Your task to perform on an android device: see tabs open on other devices in the chrome app Image 0: 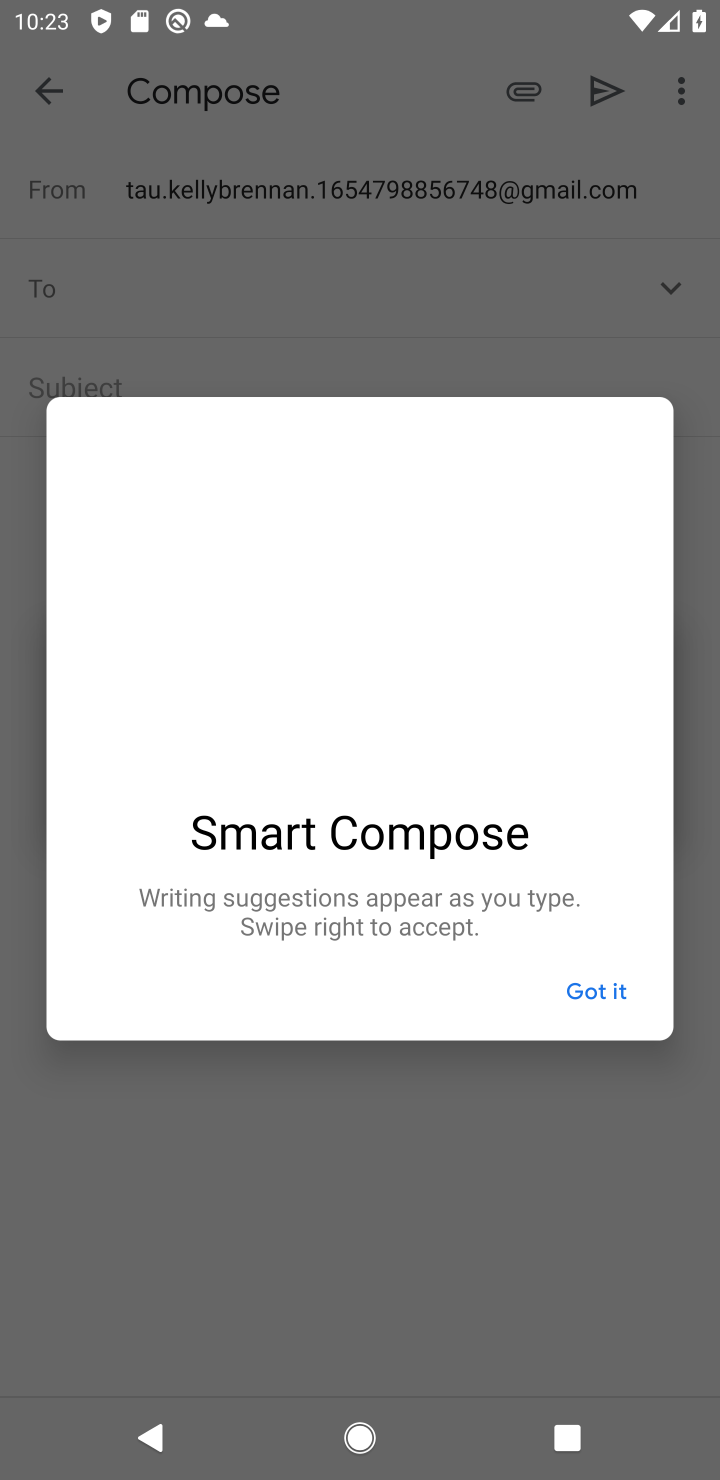
Step 0: press home button
Your task to perform on an android device: see tabs open on other devices in the chrome app Image 1: 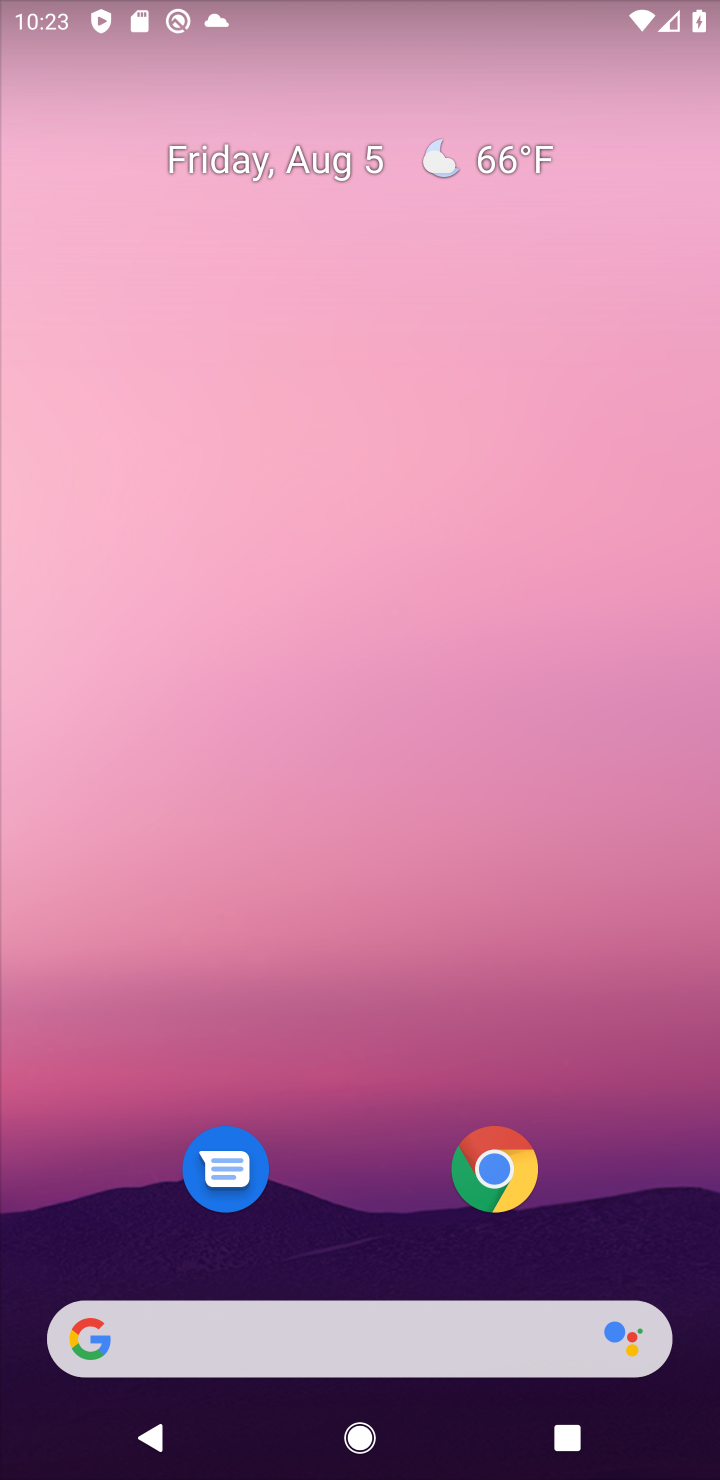
Step 1: click (493, 1171)
Your task to perform on an android device: see tabs open on other devices in the chrome app Image 2: 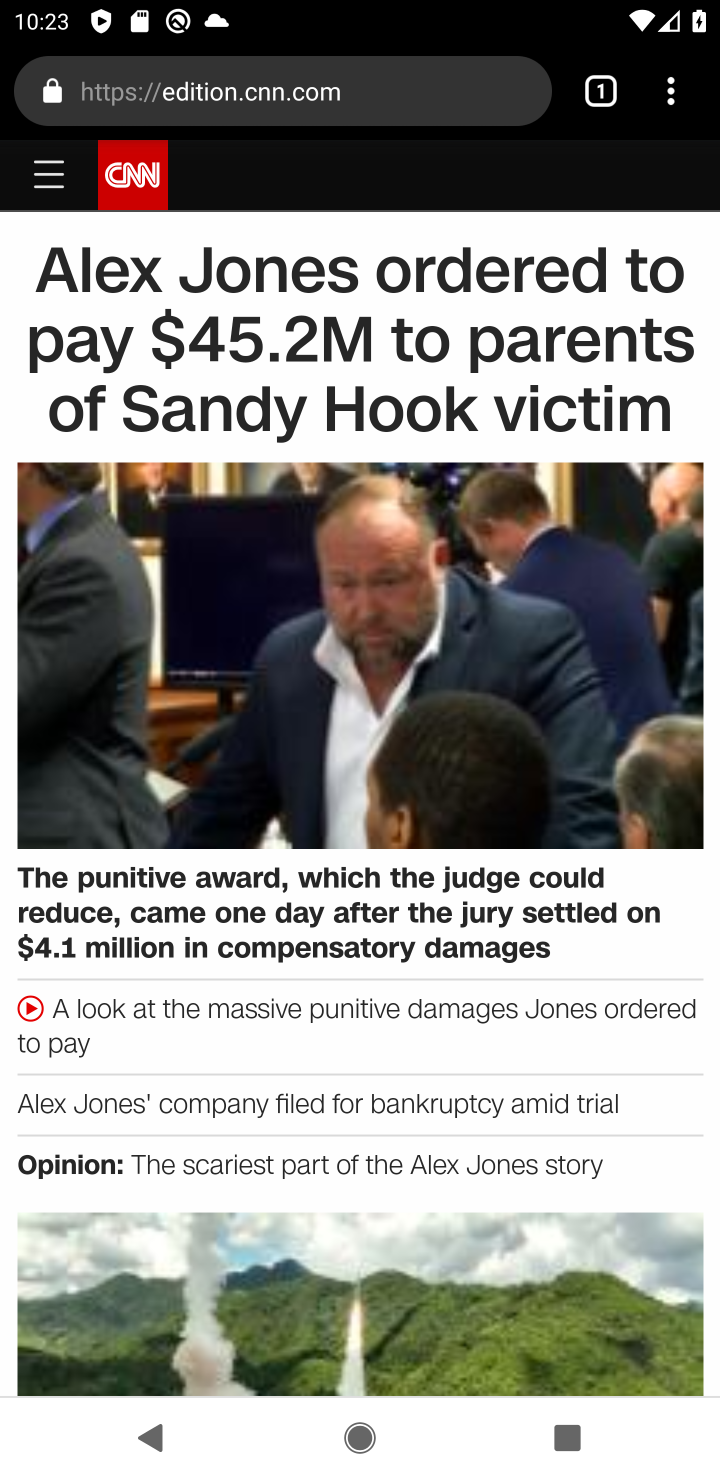
Step 2: click (669, 105)
Your task to perform on an android device: see tabs open on other devices in the chrome app Image 3: 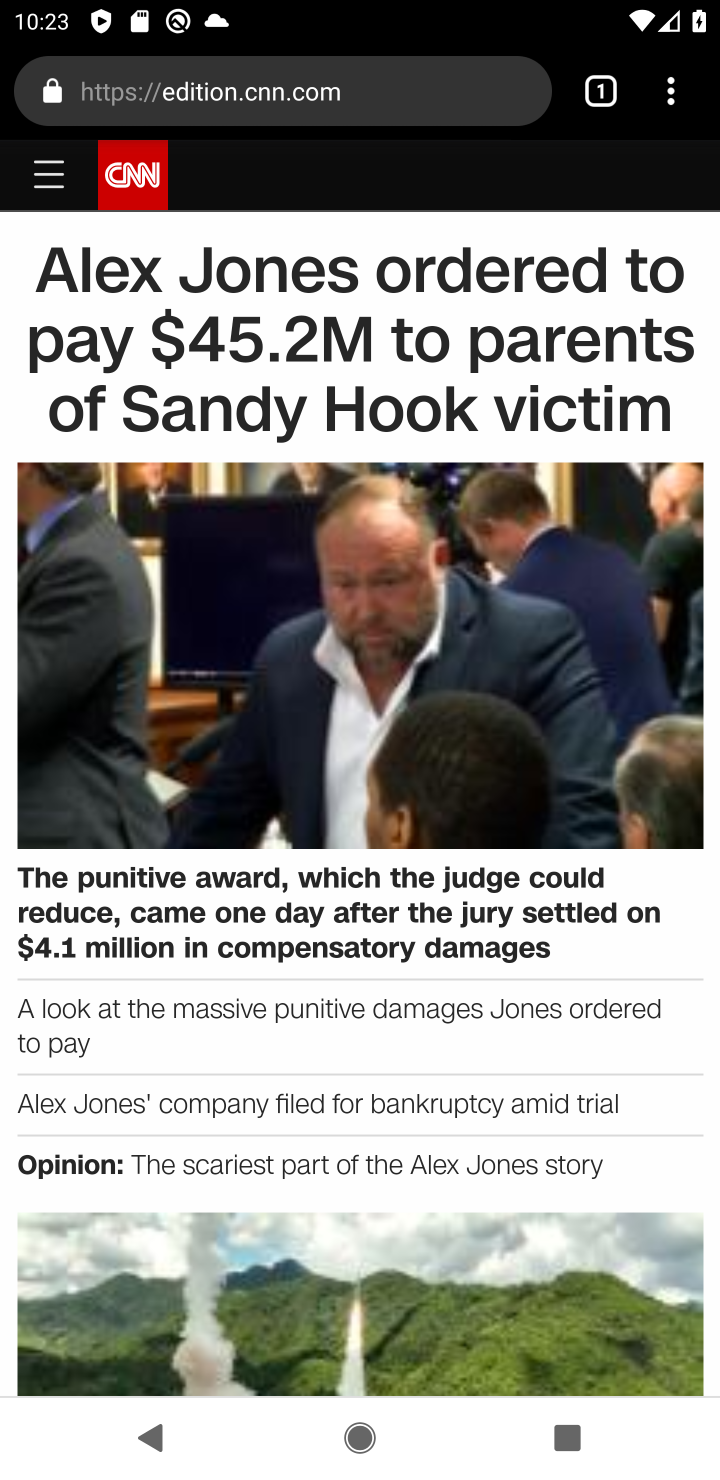
Step 3: click (660, 111)
Your task to perform on an android device: see tabs open on other devices in the chrome app Image 4: 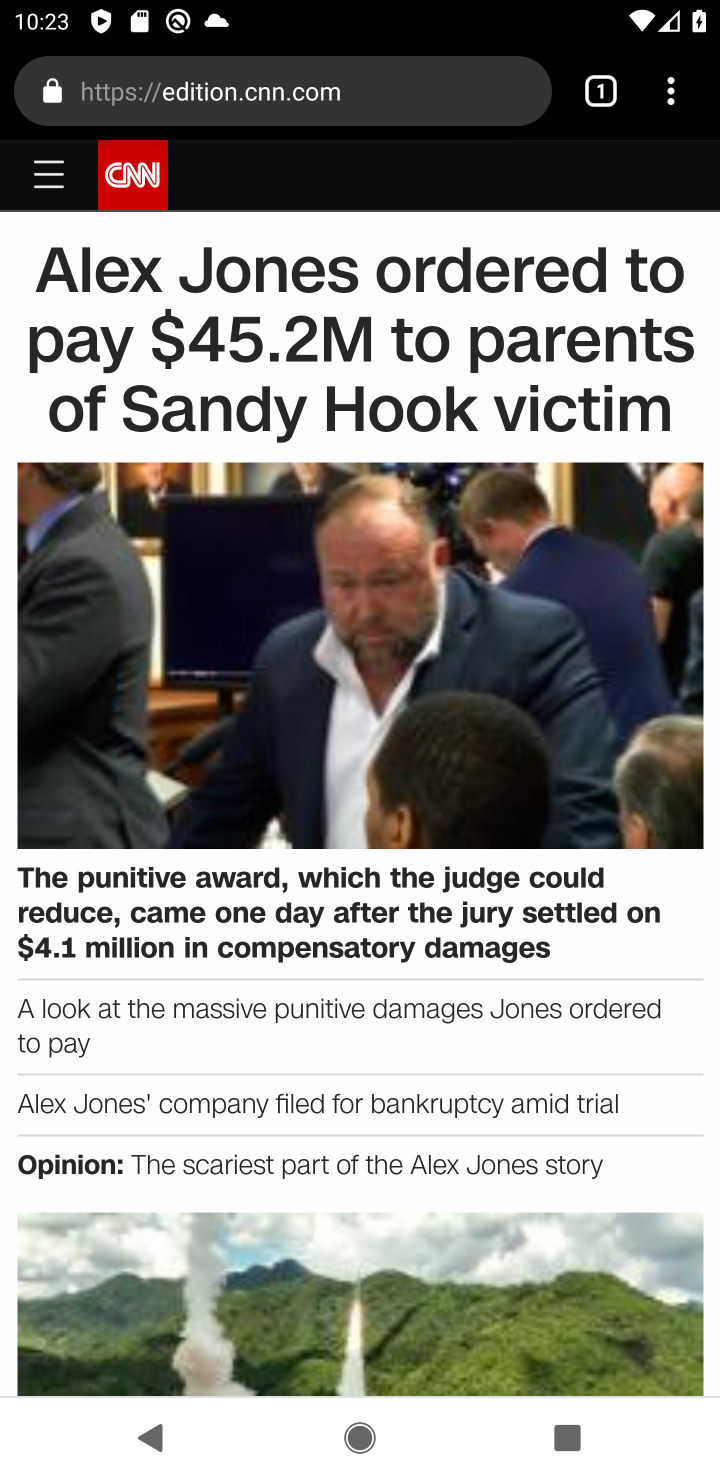
Step 4: click (660, 102)
Your task to perform on an android device: see tabs open on other devices in the chrome app Image 5: 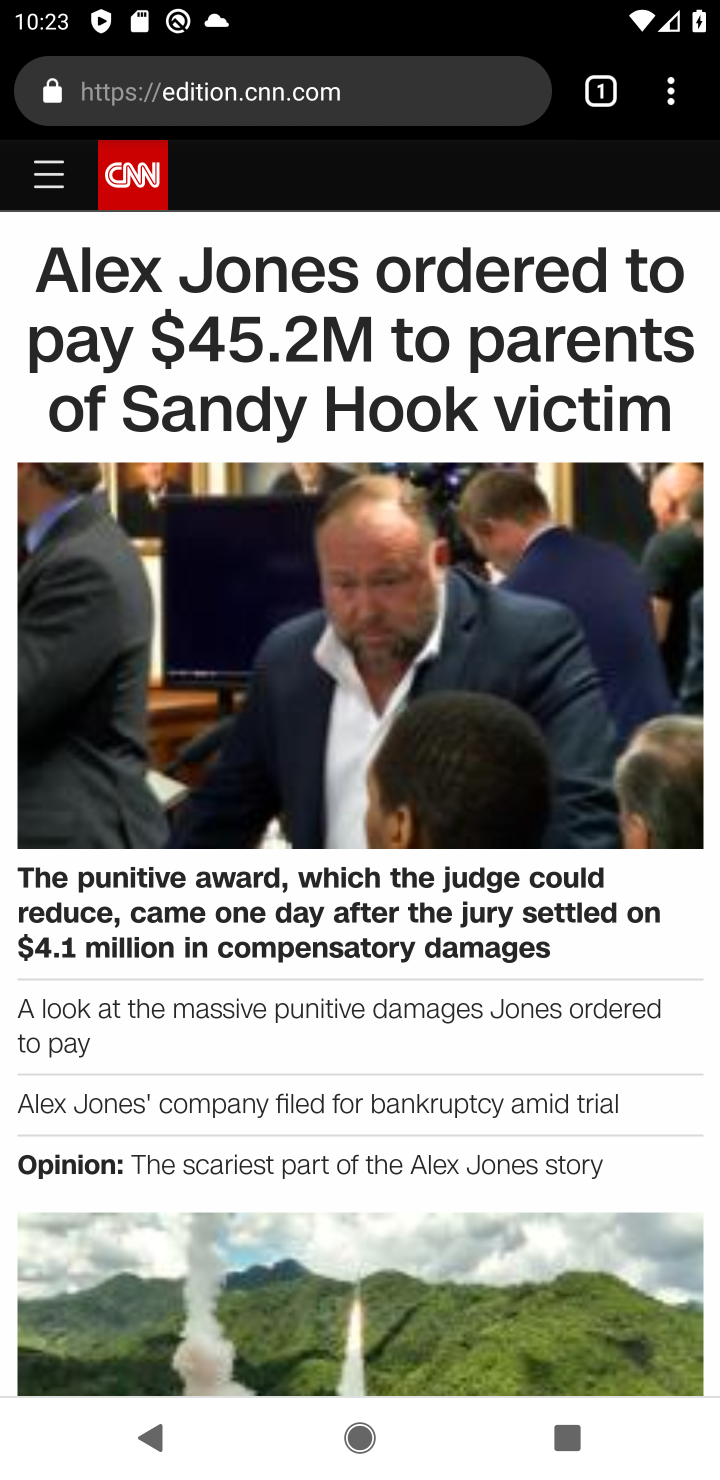
Step 5: task complete